Your task to perform on an android device: change your default location settings in chrome Image 0: 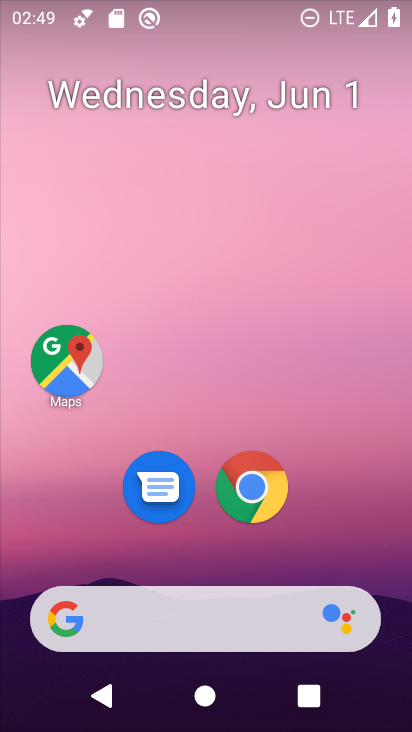
Step 0: click (266, 466)
Your task to perform on an android device: change your default location settings in chrome Image 1: 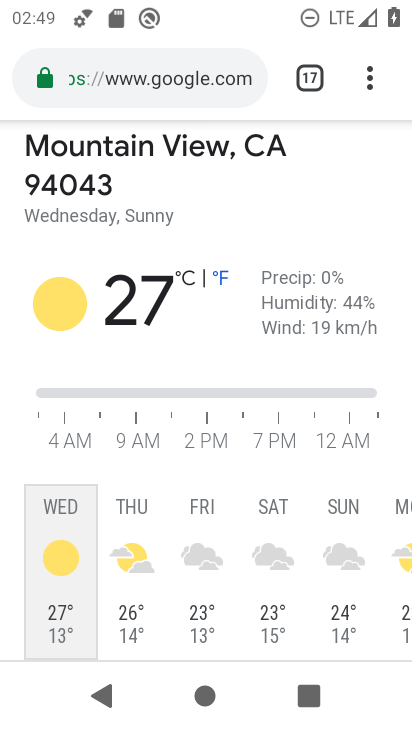
Step 1: click (370, 71)
Your task to perform on an android device: change your default location settings in chrome Image 2: 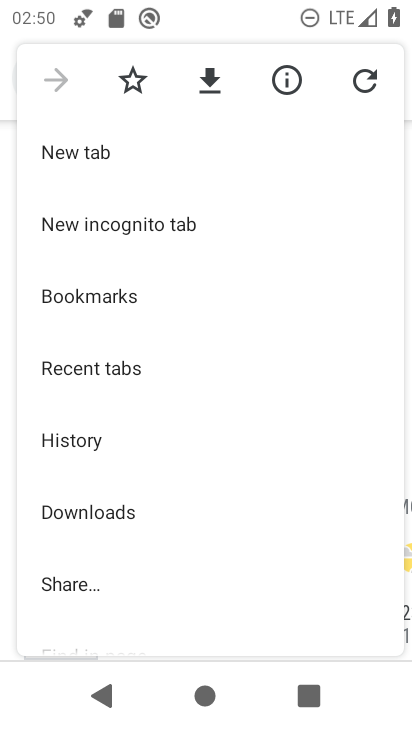
Step 2: drag from (161, 543) to (191, 242)
Your task to perform on an android device: change your default location settings in chrome Image 3: 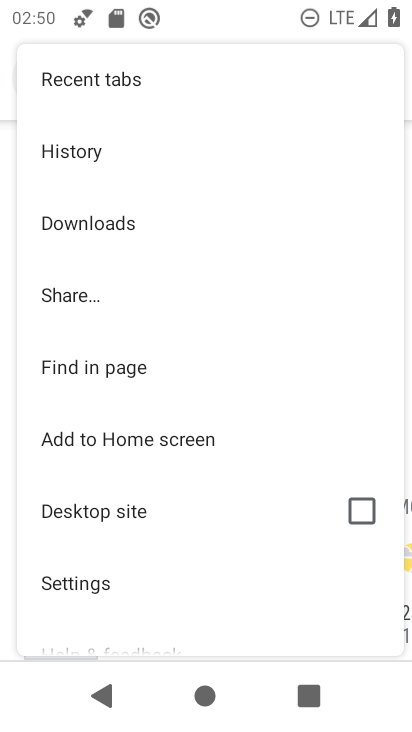
Step 3: click (106, 583)
Your task to perform on an android device: change your default location settings in chrome Image 4: 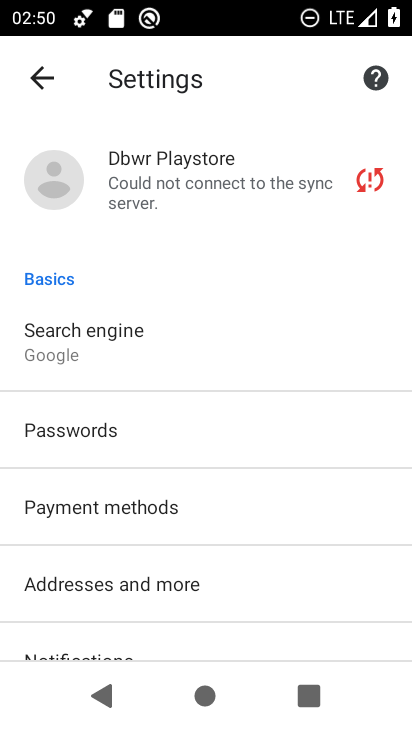
Step 4: drag from (184, 581) to (209, 269)
Your task to perform on an android device: change your default location settings in chrome Image 5: 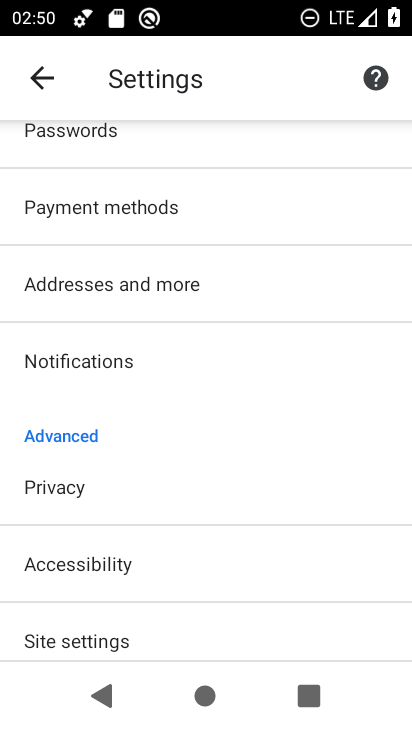
Step 5: drag from (238, 600) to (233, 358)
Your task to perform on an android device: change your default location settings in chrome Image 6: 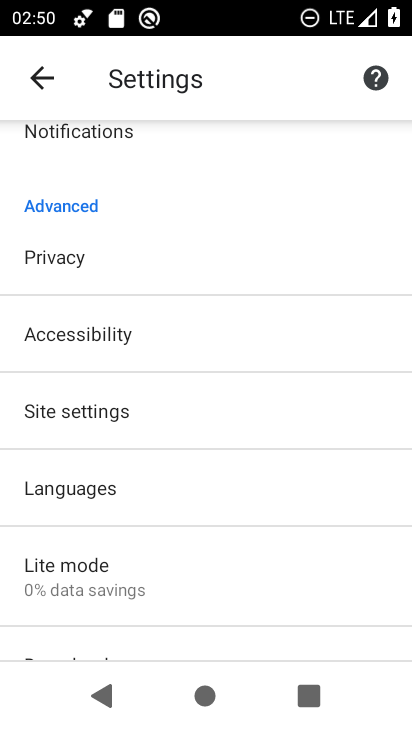
Step 6: click (117, 414)
Your task to perform on an android device: change your default location settings in chrome Image 7: 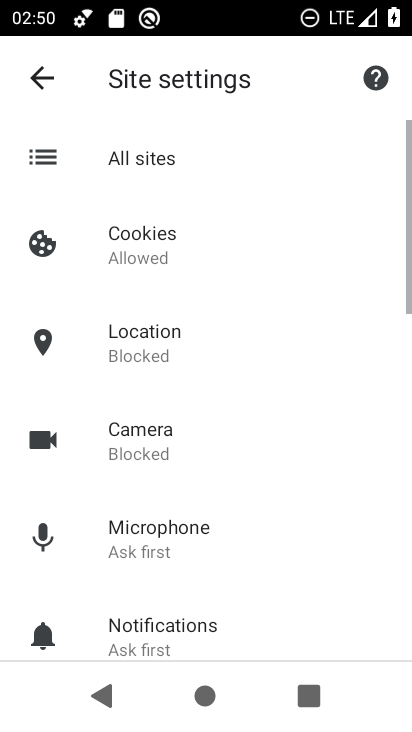
Step 7: click (119, 362)
Your task to perform on an android device: change your default location settings in chrome Image 8: 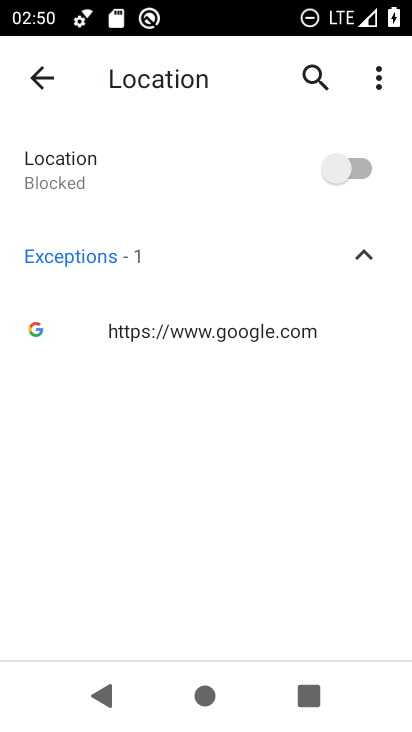
Step 8: task complete